Your task to perform on an android device: Go to Google maps Image 0: 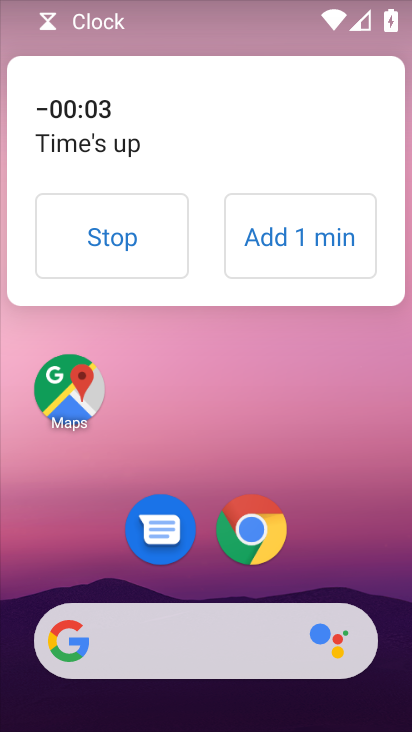
Step 0: click (139, 203)
Your task to perform on an android device: Go to Google maps Image 1: 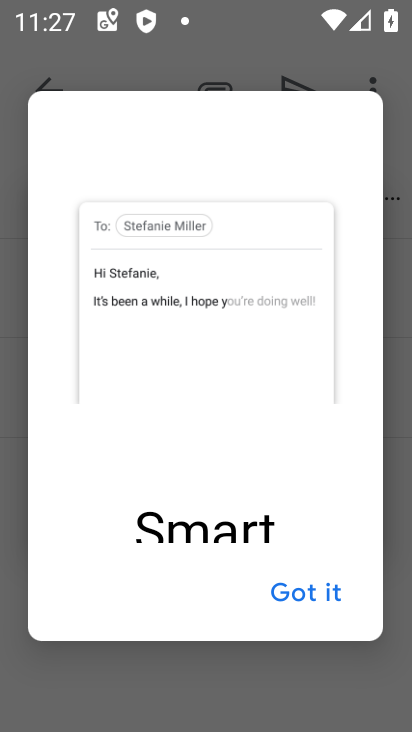
Step 1: press home button
Your task to perform on an android device: Go to Google maps Image 2: 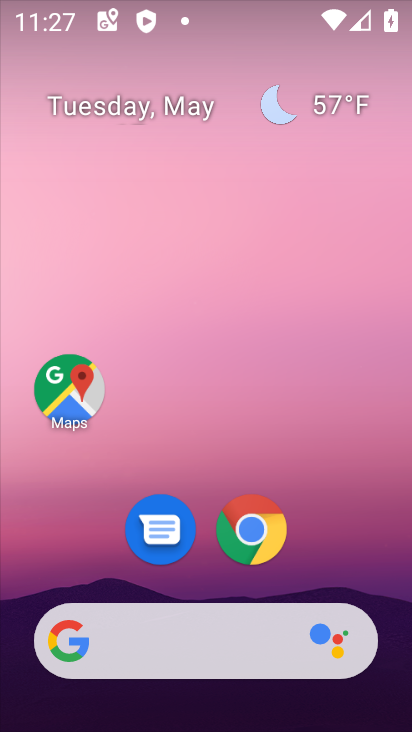
Step 2: click (10, 401)
Your task to perform on an android device: Go to Google maps Image 3: 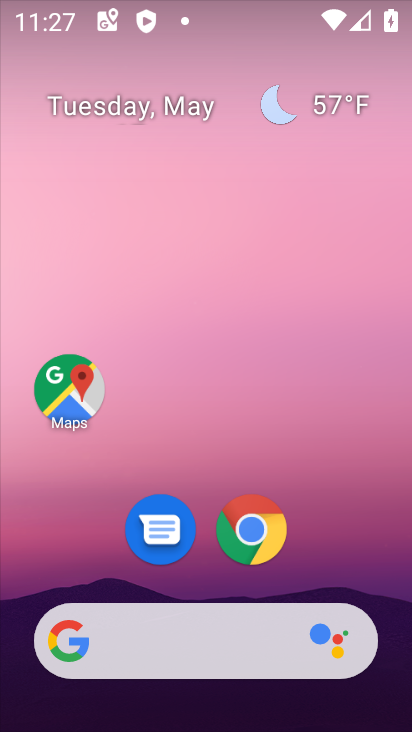
Step 3: click (72, 404)
Your task to perform on an android device: Go to Google maps Image 4: 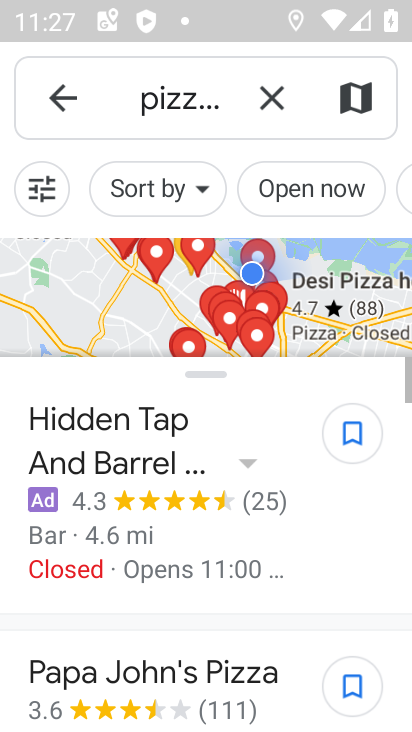
Step 4: task complete